Your task to perform on an android device: What's the weather today? Image 0: 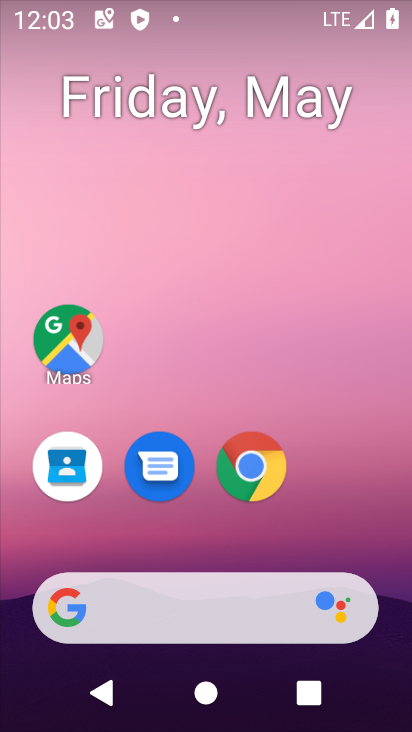
Step 0: click (180, 598)
Your task to perform on an android device: What's the weather today? Image 1: 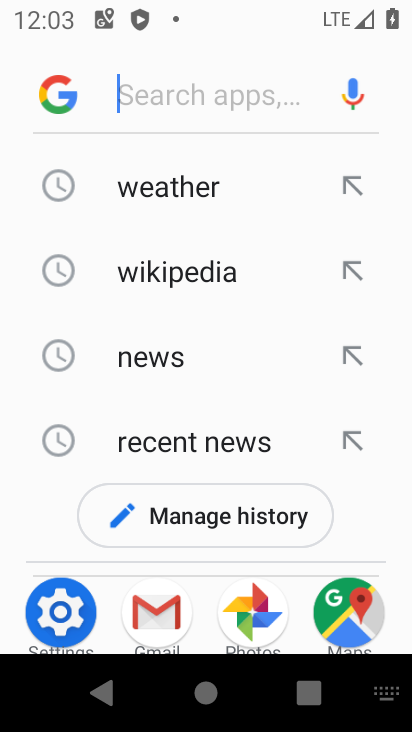
Step 1: click (176, 199)
Your task to perform on an android device: What's the weather today? Image 2: 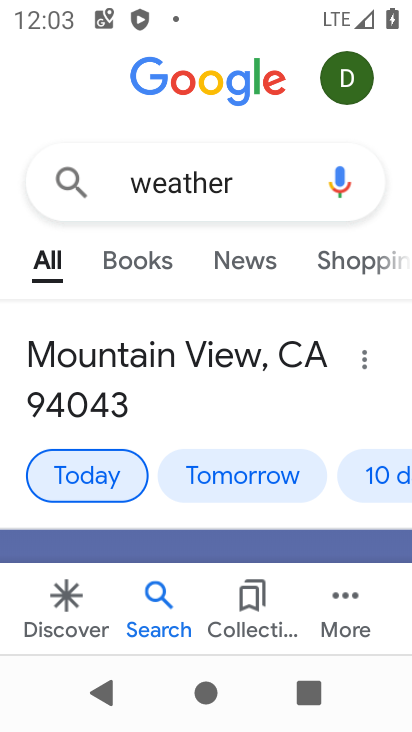
Step 2: task complete